Your task to perform on an android device: What is the recent news? Image 0: 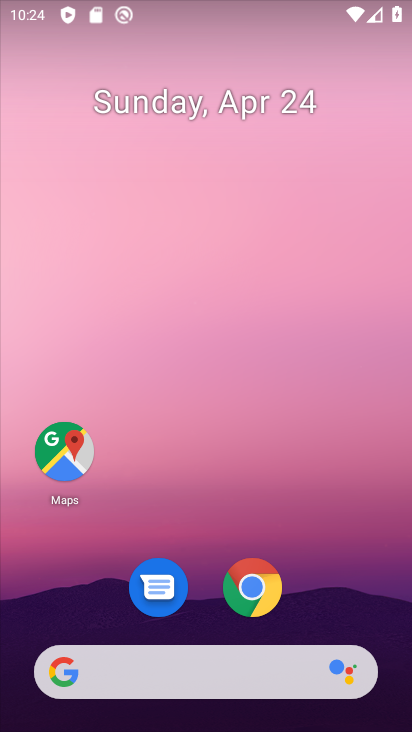
Step 0: drag from (366, 583) to (344, 89)
Your task to perform on an android device: What is the recent news? Image 1: 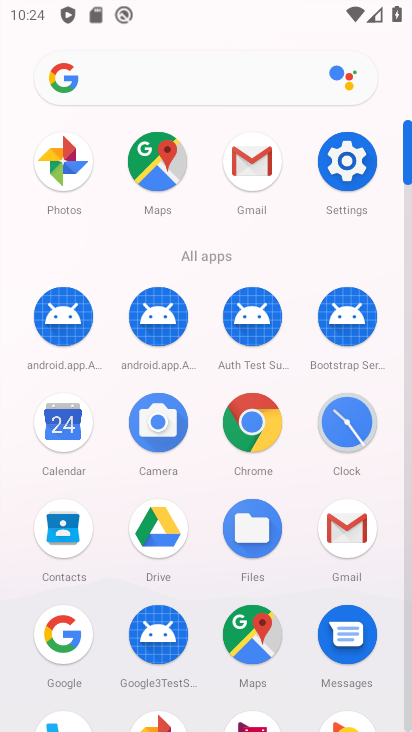
Step 1: drag from (294, 610) to (304, 247)
Your task to perform on an android device: What is the recent news? Image 2: 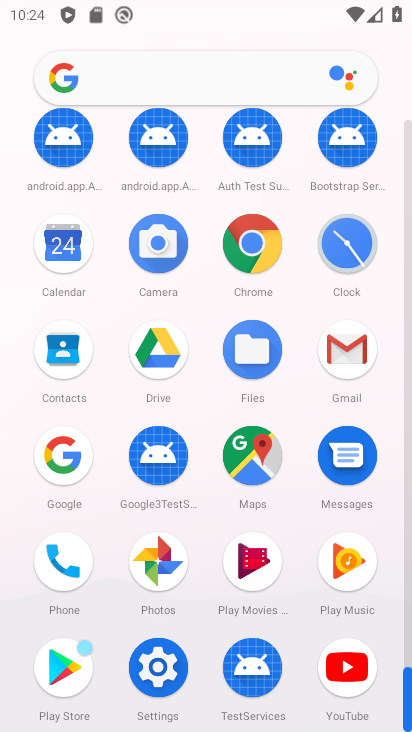
Step 2: click (255, 227)
Your task to perform on an android device: What is the recent news? Image 3: 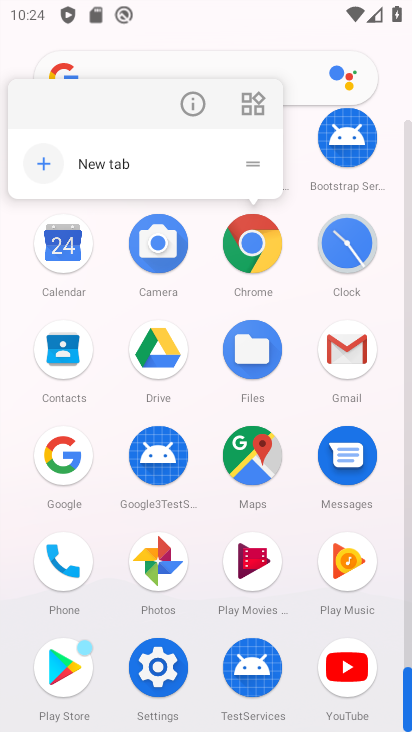
Step 3: click (258, 237)
Your task to perform on an android device: What is the recent news? Image 4: 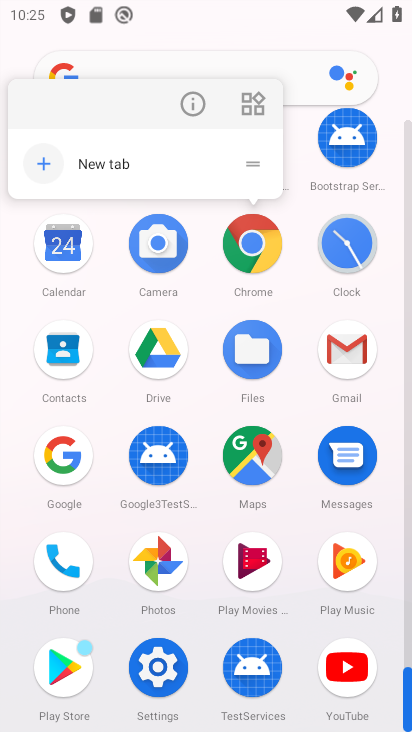
Step 4: click (261, 248)
Your task to perform on an android device: What is the recent news? Image 5: 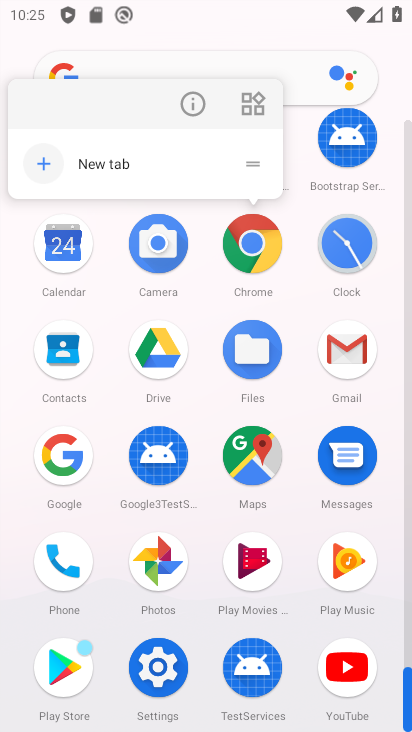
Step 5: click (264, 260)
Your task to perform on an android device: What is the recent news? Image 6: 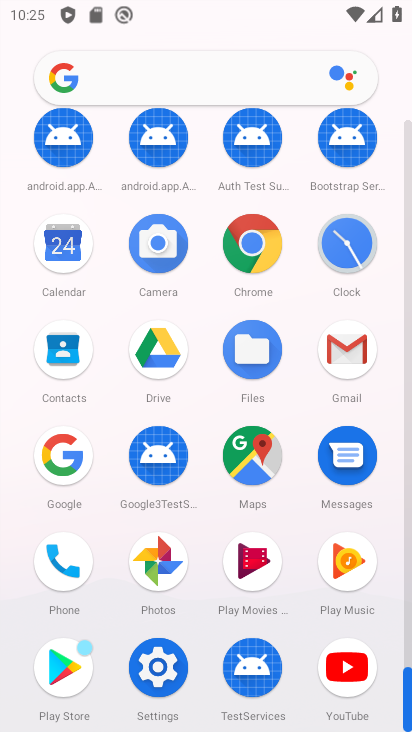
Step 6: click (266, 259)
Your task to perform on an android device: What is the recent news? Image 7: 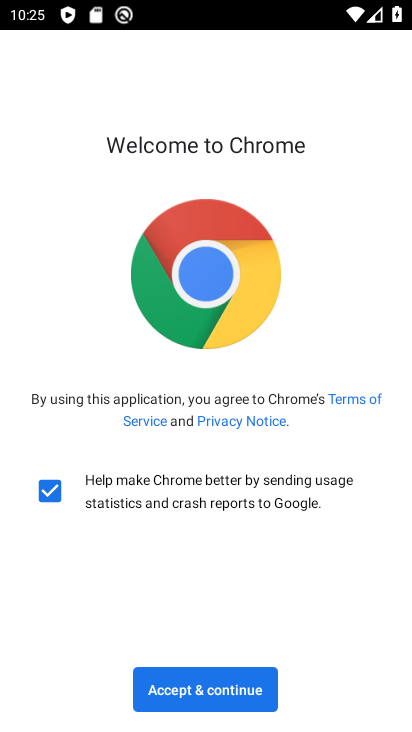
Step 7: click (238, 677)
Your task to perform on an android device: What is the recent news? Image 8: 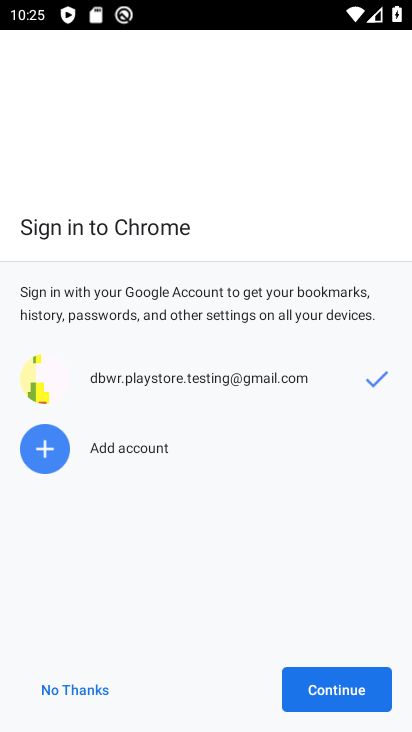
Step 8: click (307, 683)
Your task to perform on an android device: What is the recent news? Image 9: 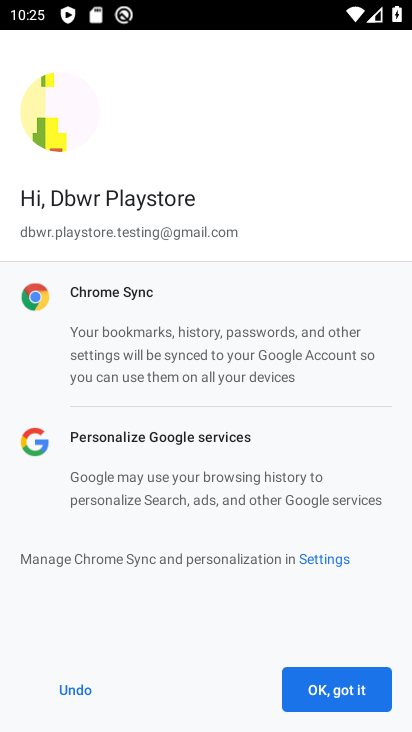
Step 9: click (306, 689)
Your task to perform on an android device: What is the recent news? Image 10: 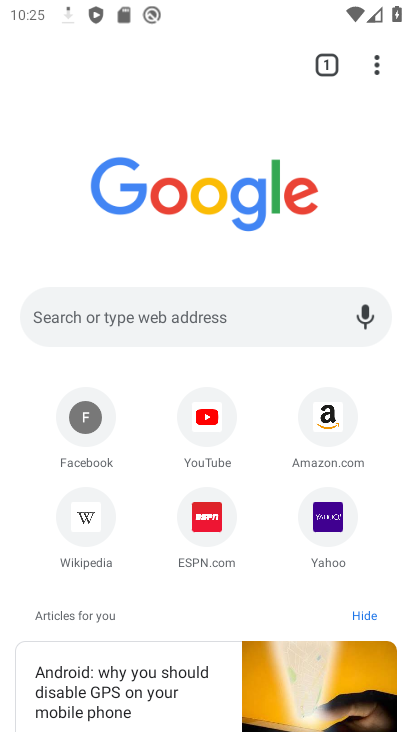
Step 10: click (189, 318)
Your task to perform on an android device: What is the recent news? Image 11: 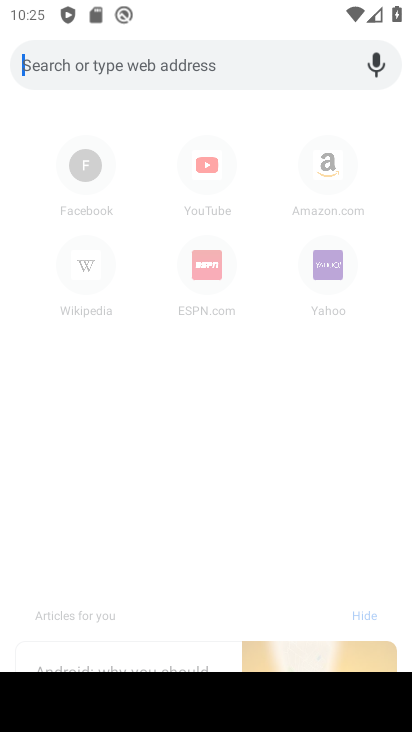
Step 11: click (165, 64)
Your task to perform on an android device: What is the recent news? Image 12: 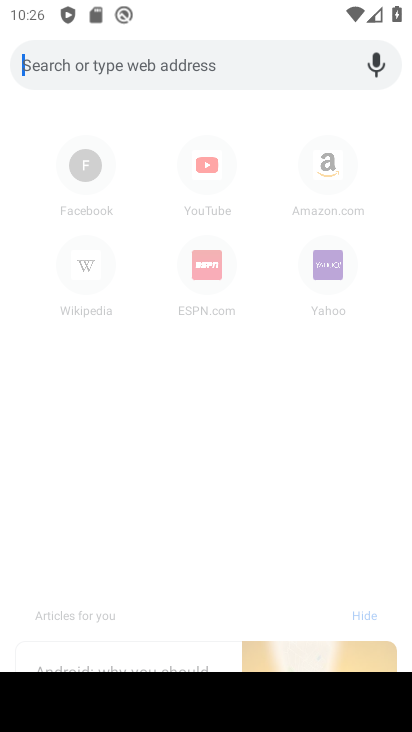
Step 12: type "recent news"
Your task to perform on an android device: What is the recent news? Image 13: 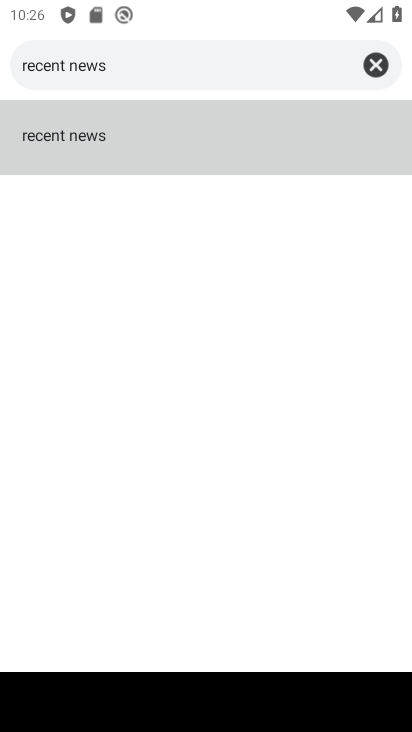
Step 13: click (53, 127)
Your task to perform on an android device: What is the recent news? Image 14: 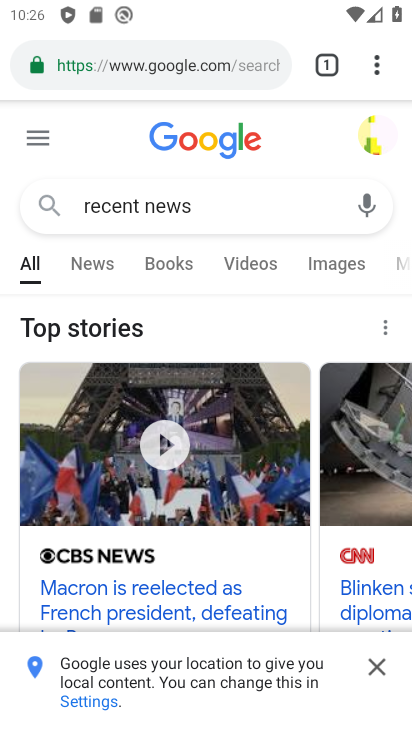
Step 14: task complete